Your task to perform on an android device: install app "Life360: Find Family & Friends" Image 0: 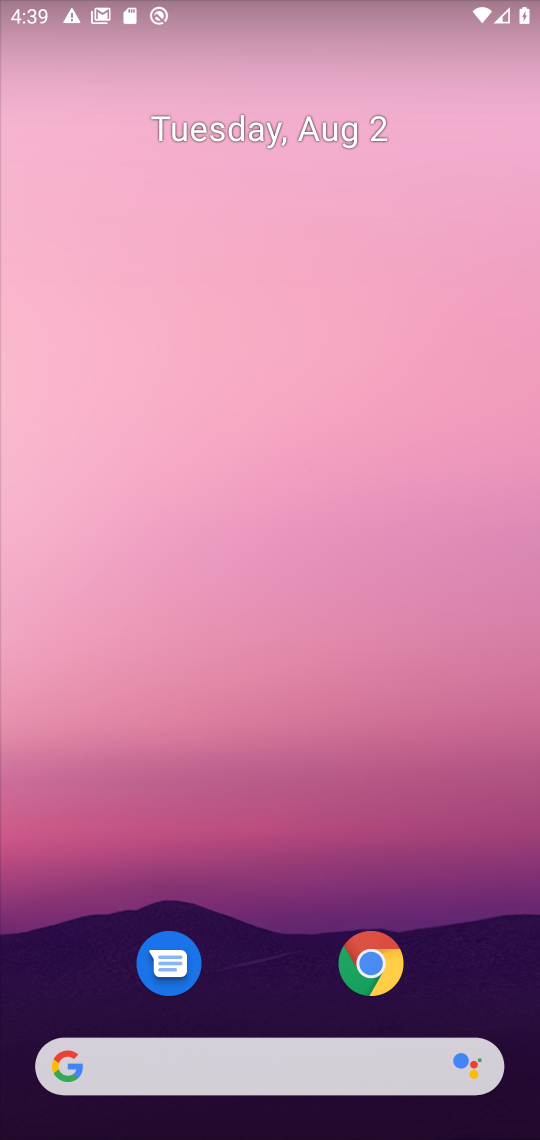
Step 0: drag from (206, 802) to (221, 310)
Your task to perform on an android device: install app "Life360: Find Family & Friends" Image 1: 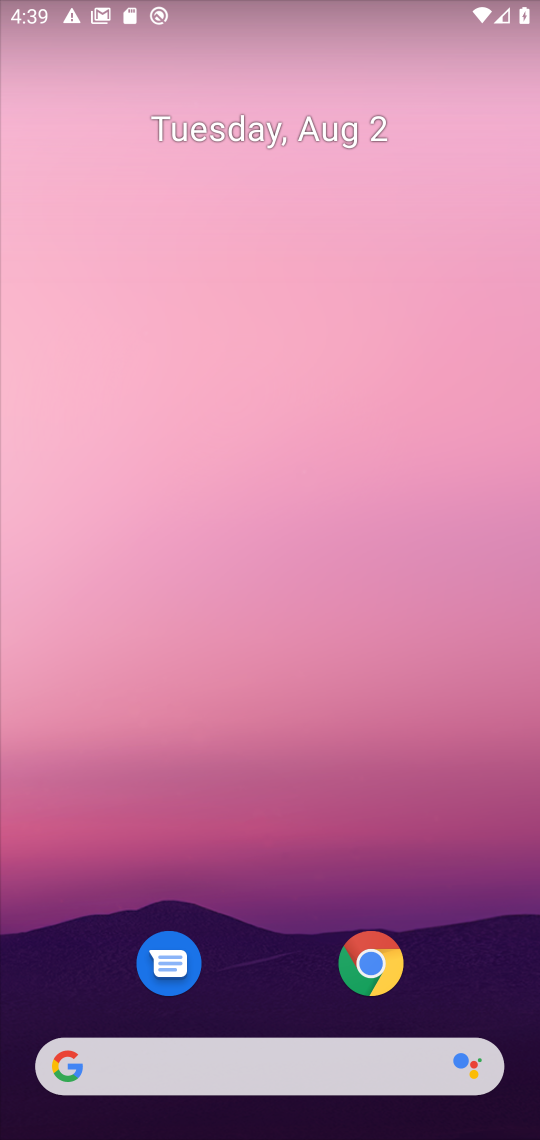
Step 1: drag from (284, 1026) to (252, 351)
Your task to perform on an android device: install app "Life360: Find Family & Friends" Image 2: 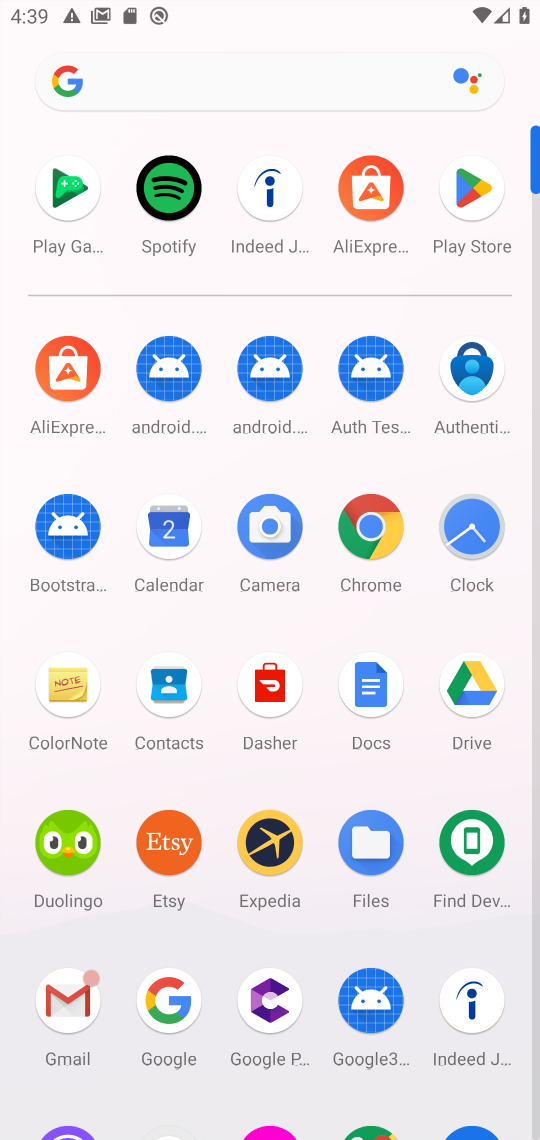
Step 2: click (456, 210)
Your task to perform on an android device: install app "Life360: Find Family & Friends" Image 3: 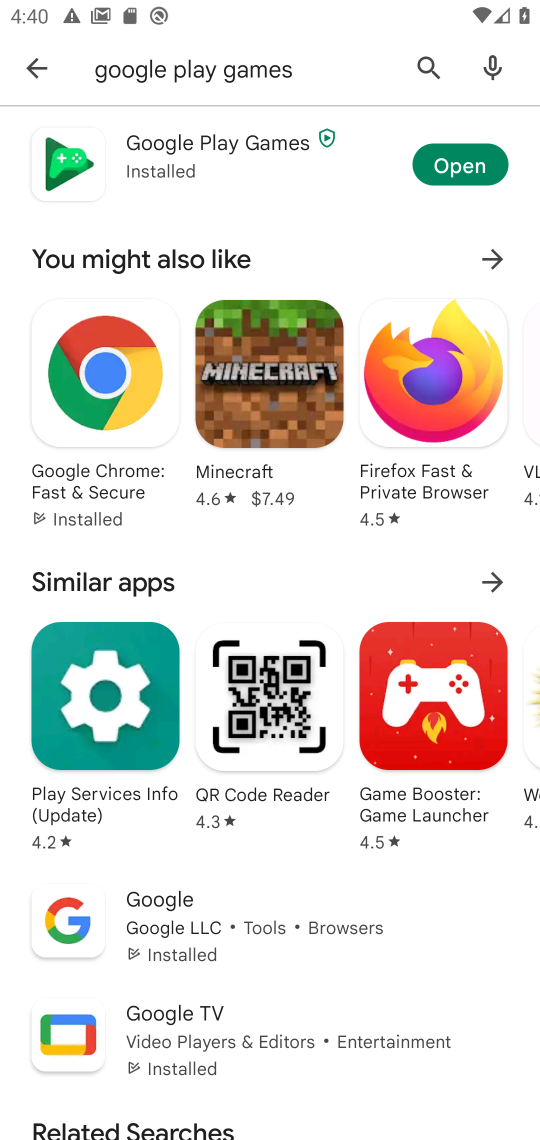
Step 3: click (421, 66)
Your task to perform on an android device: install app "Life360: Find Family & Friends" Image 4: 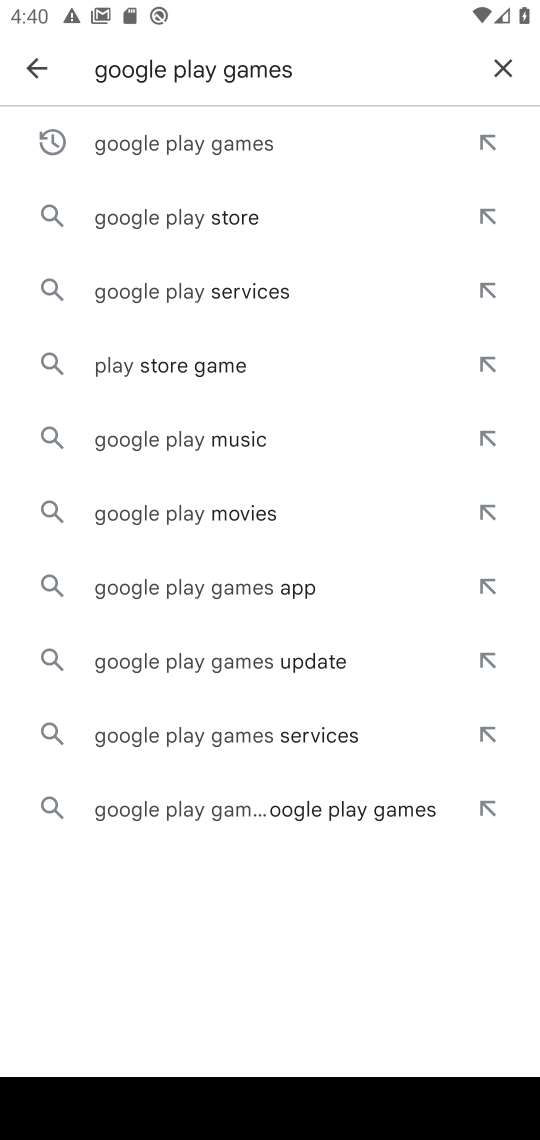
Step 4: click (507, 79)
Your task to perform on an android device: install app "Life360: Find Family & Friends" Image 5: 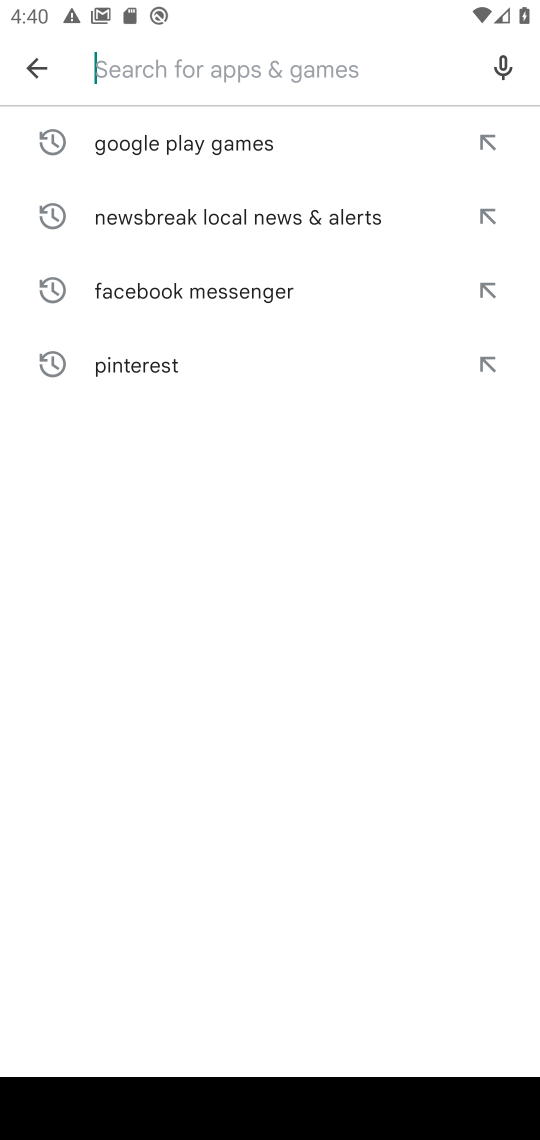
Step 5: type "Life360: Find Family & Friends"
Your task to perform on an android device: install app "Life360: Find Family & Friends" Image 6: 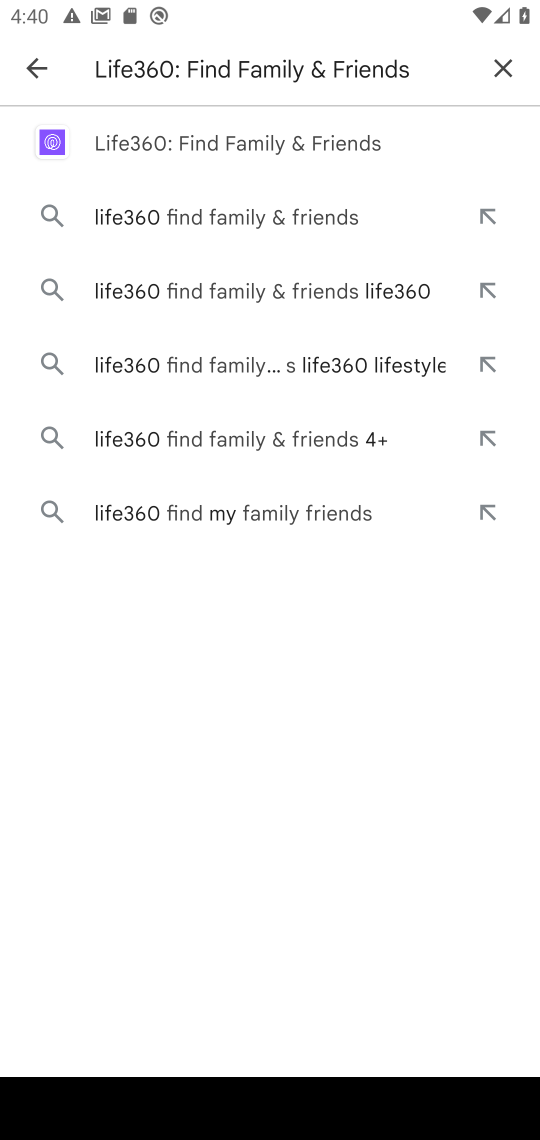
Step 6: click (200, 152)
Your task to perform on an android device: install app "Life360: Find Family & Friends" Image 7: 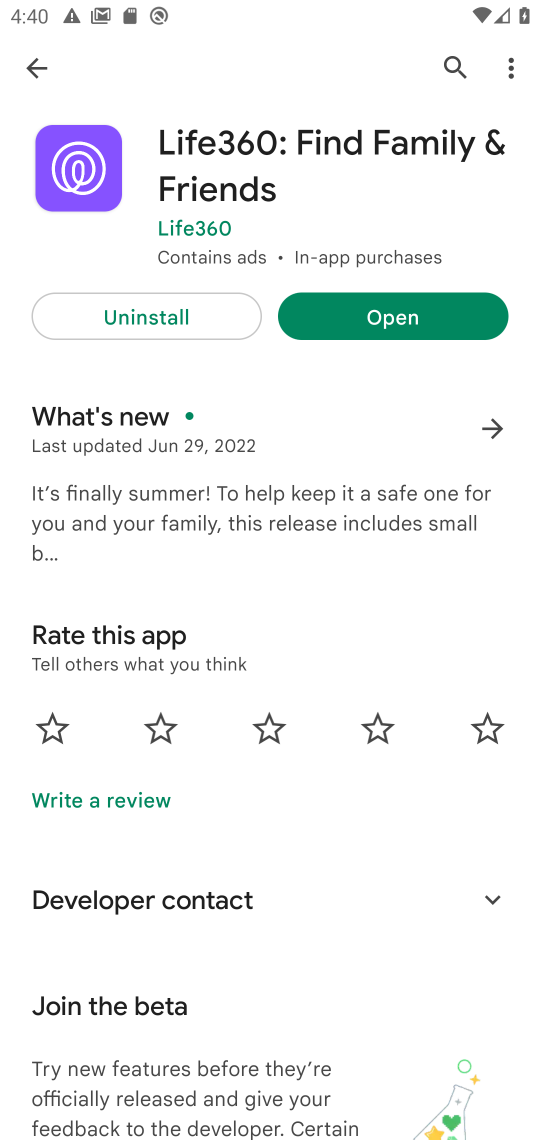
Step 7: task complete